Your task to perform on an android device: Open Google Chrome and click the shortcut for Amazon.com Image 0: 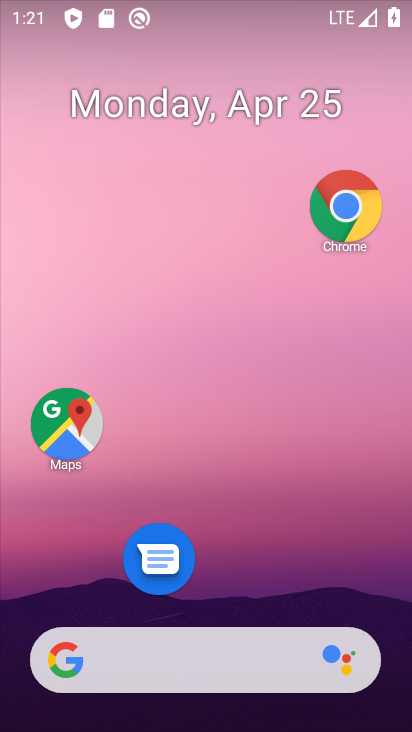
Step 0: drag from (223, 489) to (244, 109)
Your task to perform on an android device: Open Google Chrome and click the shortcut for Amazon.com Image 1: 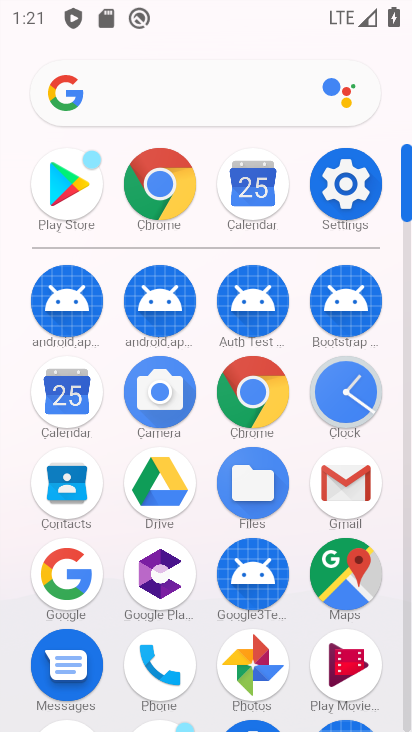
Step 1: click (160, 190)
Your task to perform on an android device: Open Google Chrome and click the shortcut for Amazon.com Image 2: 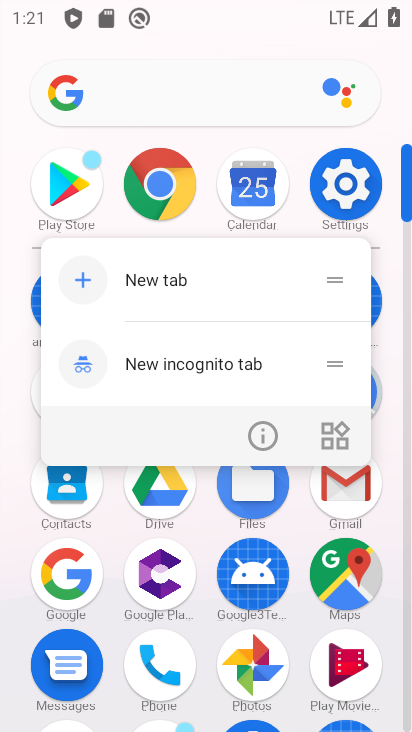
Step 2: click (166, 175)
Your task to perform on an android device: Open Google Chrome and click the shortcut for Amazon.com Image 3: 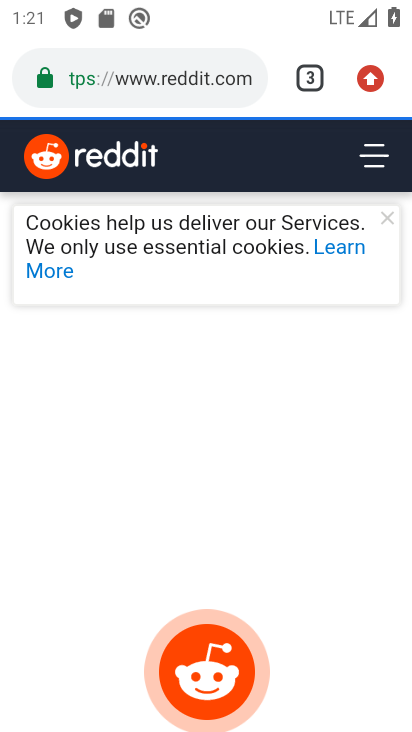
Step 3: click (312, 77)
Your task to perform on an android device: Open Google Chrome and click the shortcut for Amazon.com Image 4: 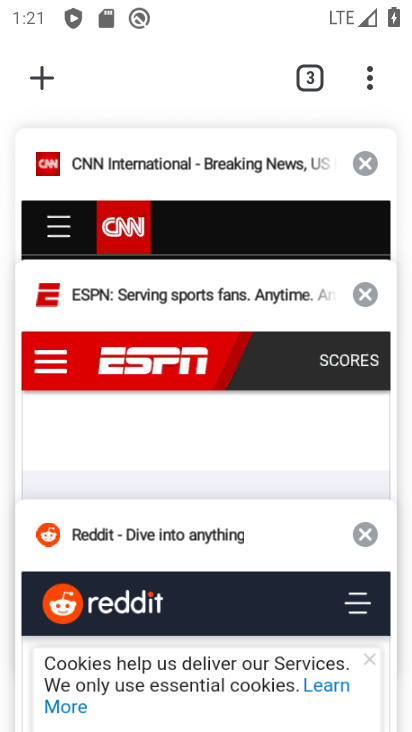
Step 4: click (53, 67)
Your task to perform on an android device: Open Google Chrome and click the shortcut for Amazon.com Image 5: 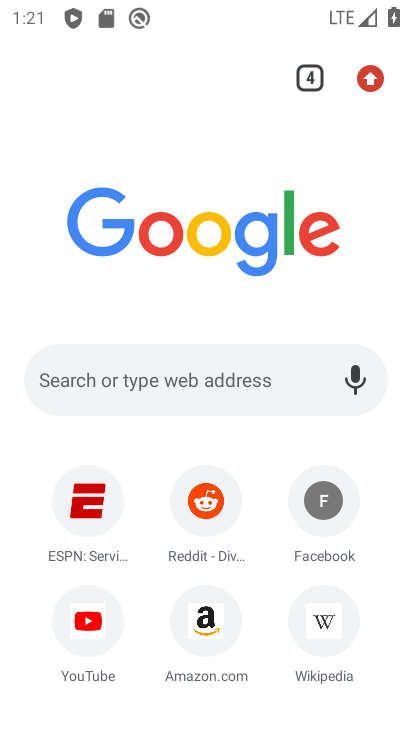
Step 5: click (214, 618)
Your task to perform on an android device: Open Google Chrome and click the shortcut for Amazon.com Image 6: 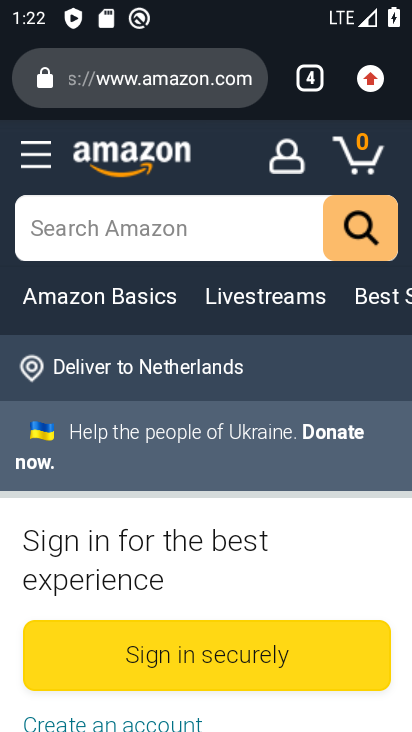
Step 6: task complete